Your task to perform on an android device: change notifications settings Image 0: 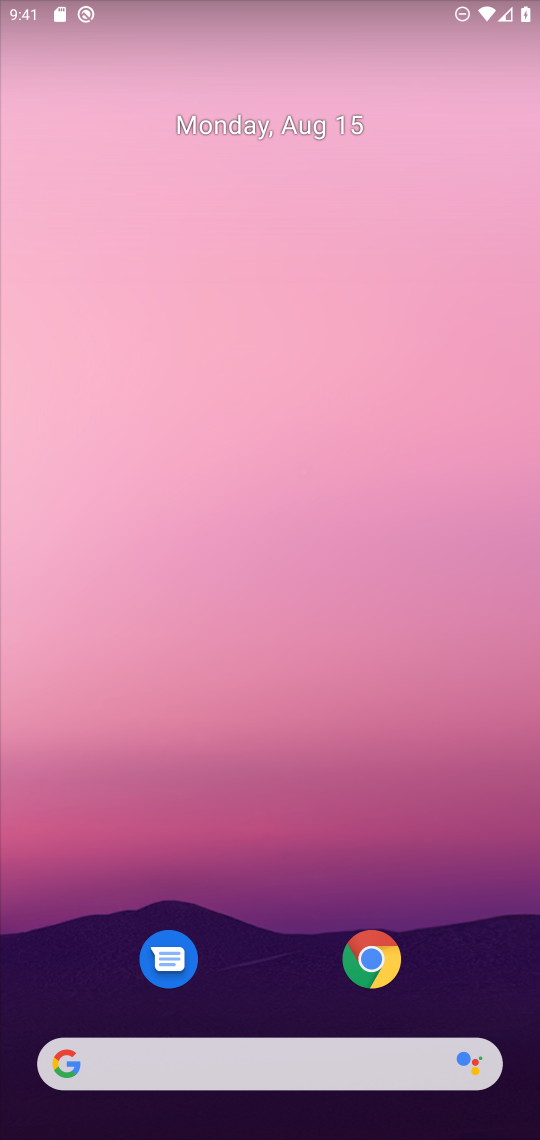
Step 0: drag from (285, 1009) to (225, 105)
Your task to perform on an android device: change notifications settings Image 1: 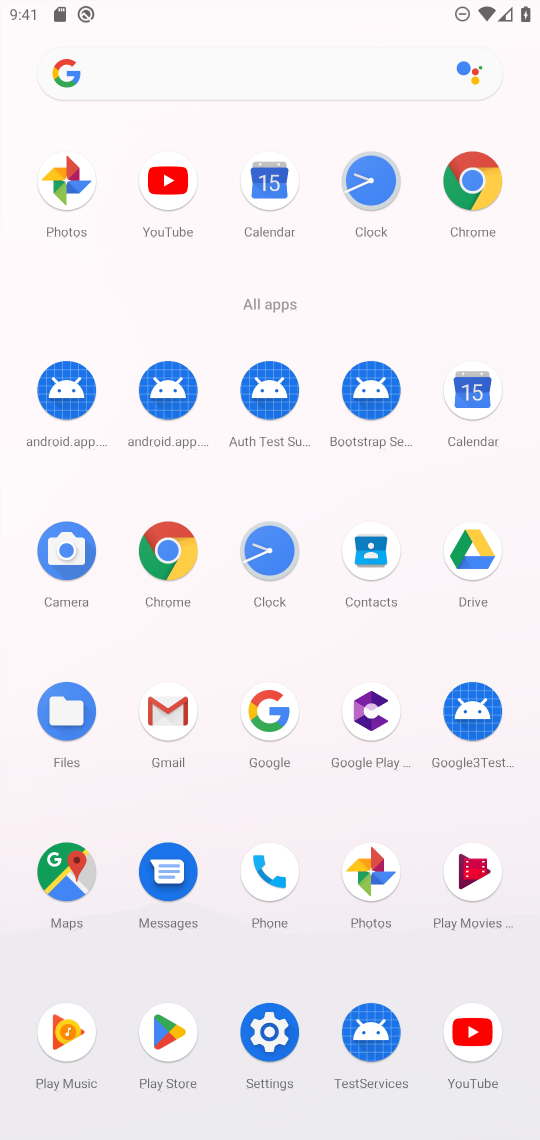
Step 1: click (266, 1028)
Your task to perform on an android device: change notifications settings Image 2: 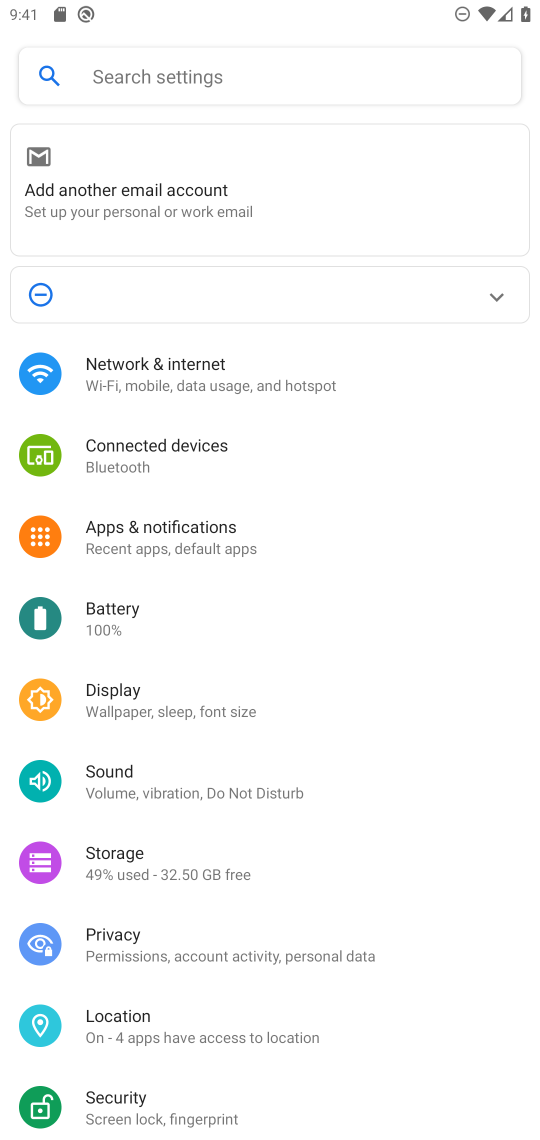
Step 2: click (92, 550)
Your task to perform on an android device: change notifications settings Image 3: 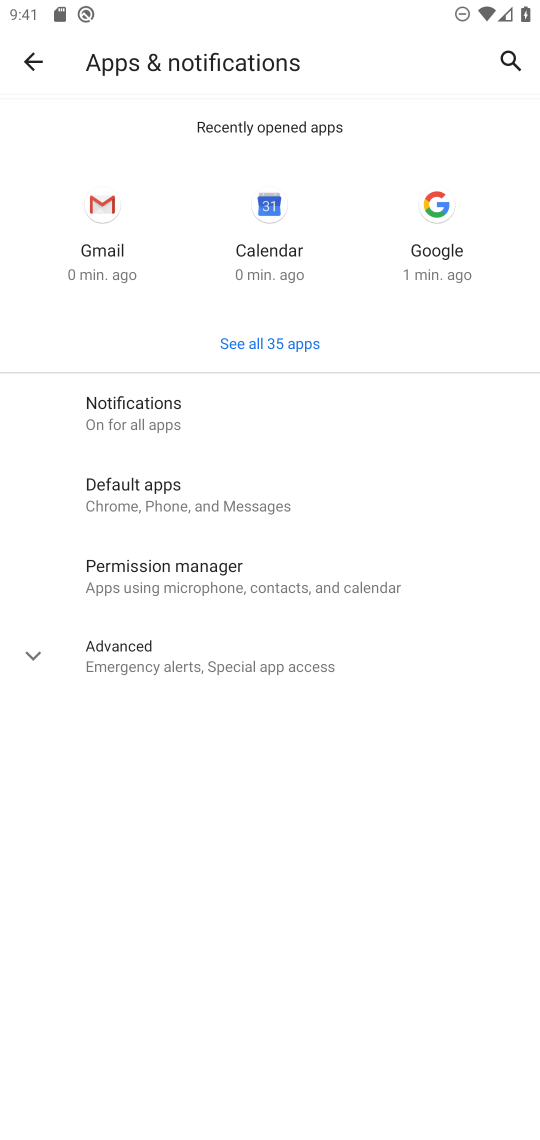
Step 3: click (116, 390)
Your task to perform on an android device: change notifications settings Image 4: 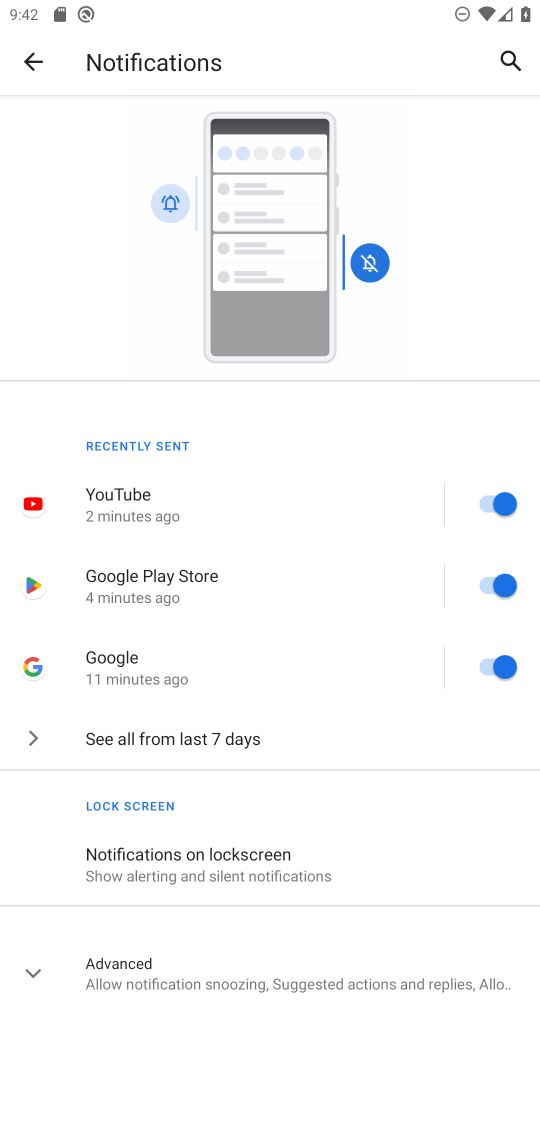
Step 4: click (171, 959)
Your task to perform on an android device: change notifications settings Image 5: 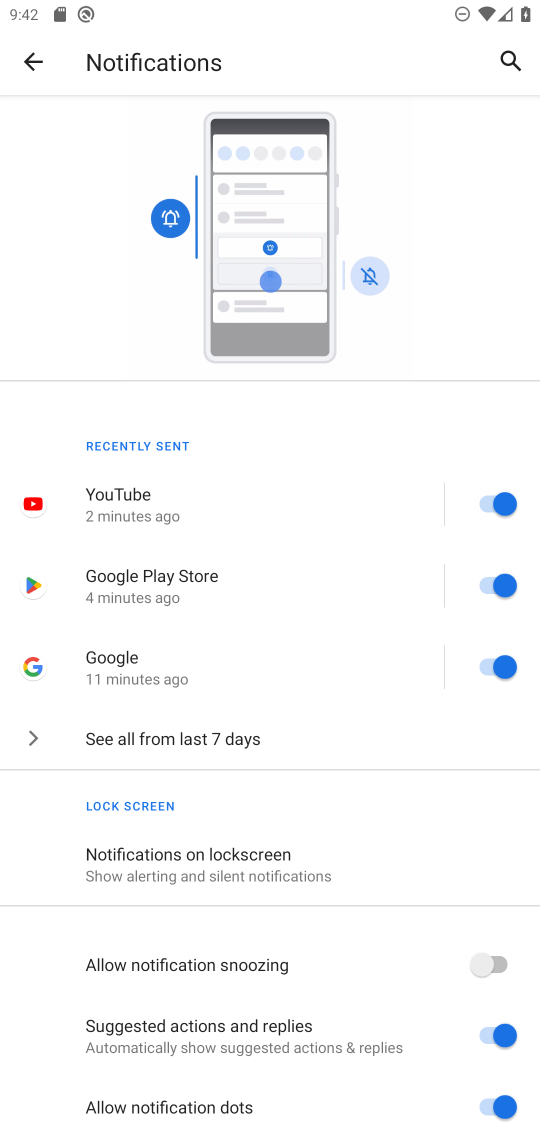
Step 5: click (154, 745)
Your task to perform on an android device: change notifications settings Image 6: 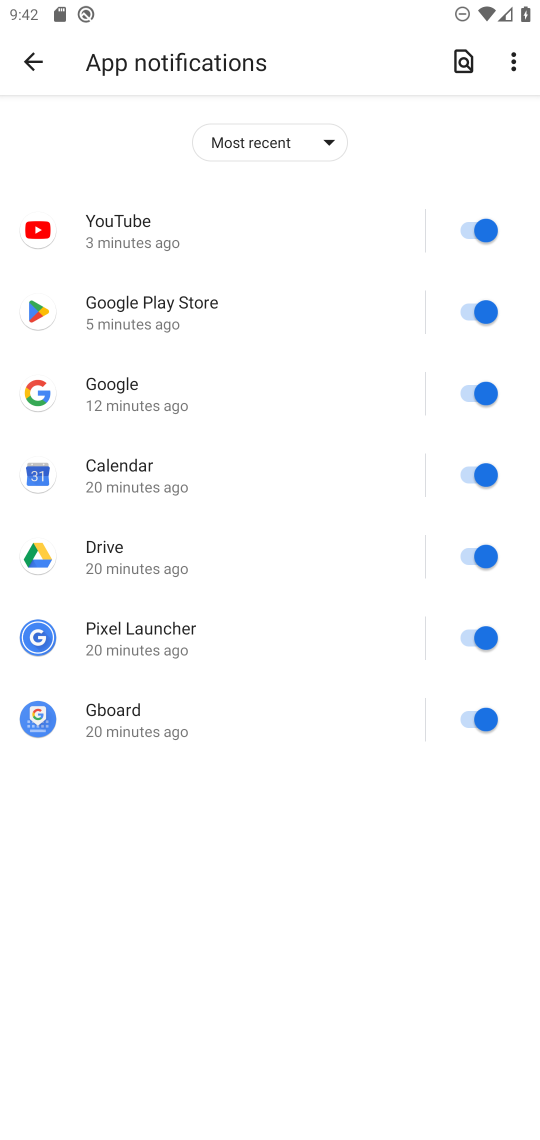
Step 6: task complete